Your task to perform on an android device: toggle improve location accuracy Image 0: 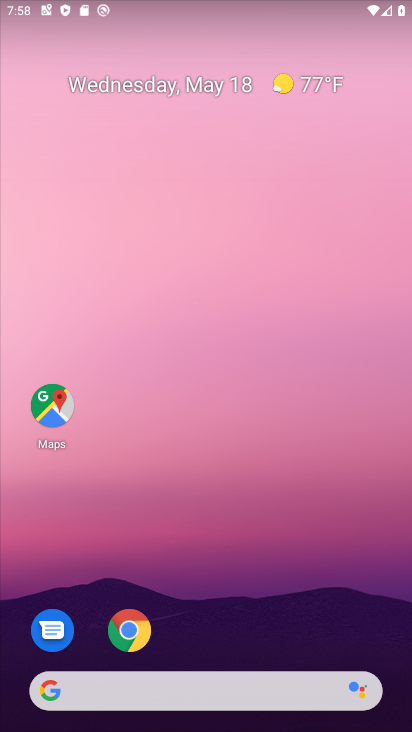
Step 0: drag from (262, 637) to (277, 208)
Your task to perform on an android device: toggle improve location accuracy Image 1: 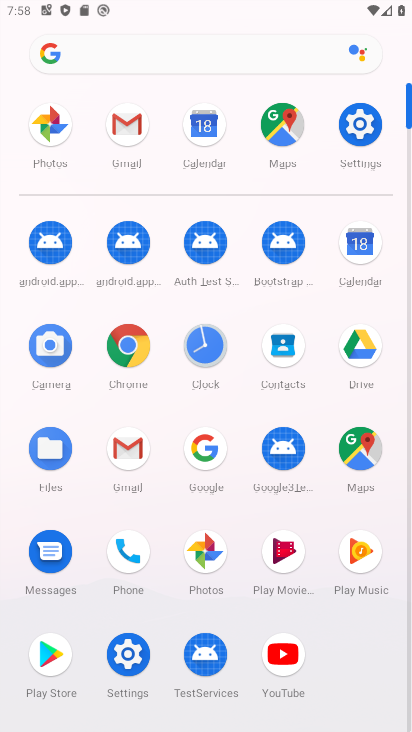
Step 1: click (366, 135)
Your task to perform on an android device: toggle improve location accuracy Image 2: 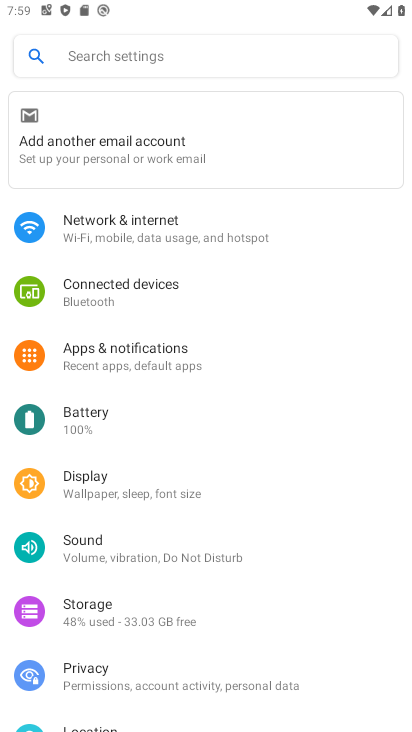
Step 2: drag from (150, 671) to (172, 364)
Your task to perform on an android device: toggle improve location accuracy Image 3: 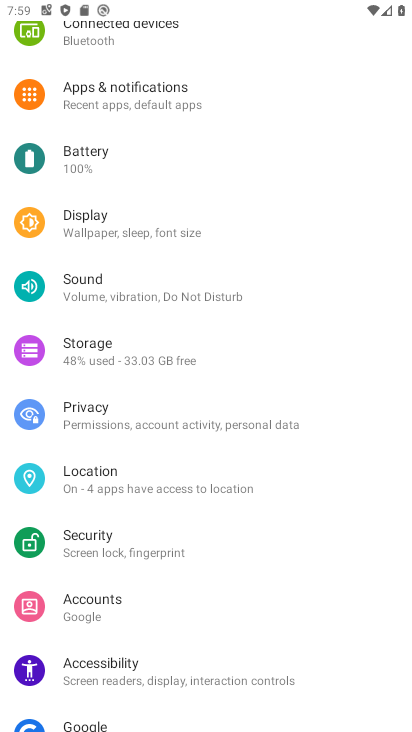
Step 3: click (142, 495)
Your task to perform on an android device: toggle improve location accuracy Image 4: 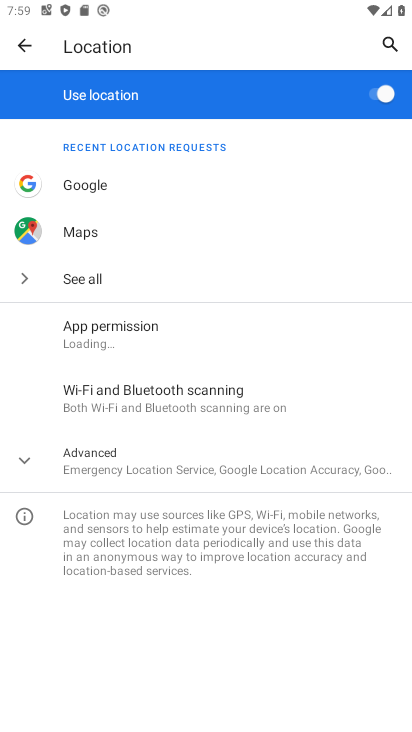
Step 4: click (22, 460)
Your task to perform on an android device: toggle improve location accuracy Image 5: 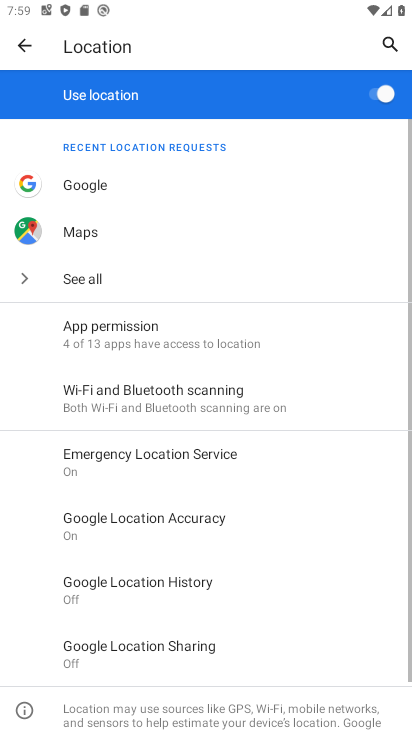
Step 5: click (212, 516)
Your task to perform on an android device: toggle improve location accuracy Image 6: 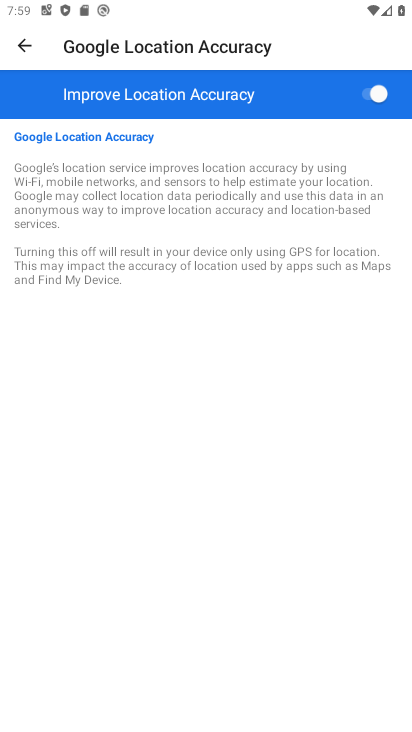
Step 6: click (377, 85)
Your task to perform on an android device: toggle improve location accuracy Image 7: 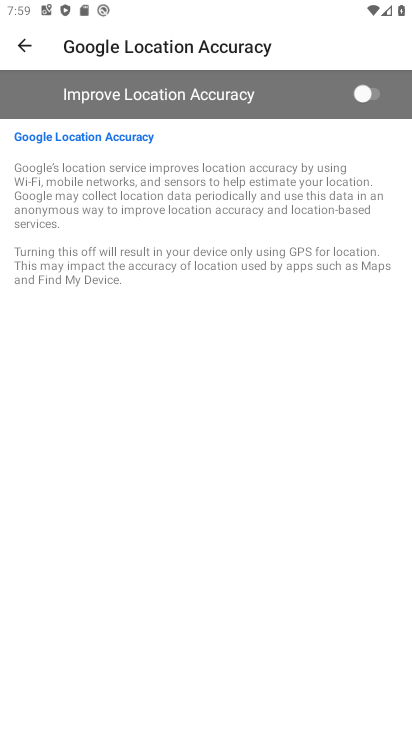
Step 7: task complete